Your task to perform on an android device: Show me productivity apps on the Play Store Image 0: 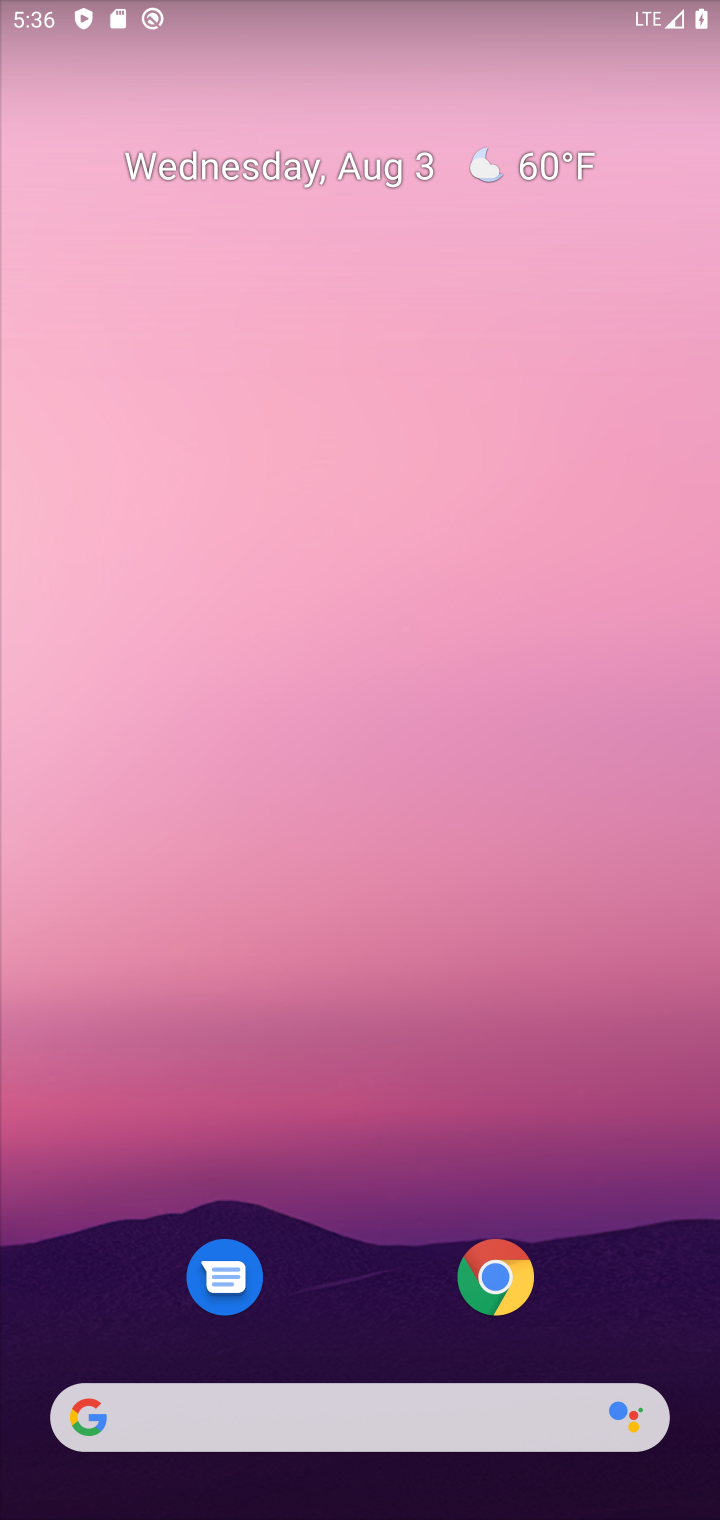
Step 0: drag from (419, 1032) to (544, 199)
Your task to perform on an android device: Show me productivity apps on the Play Store Image 1: 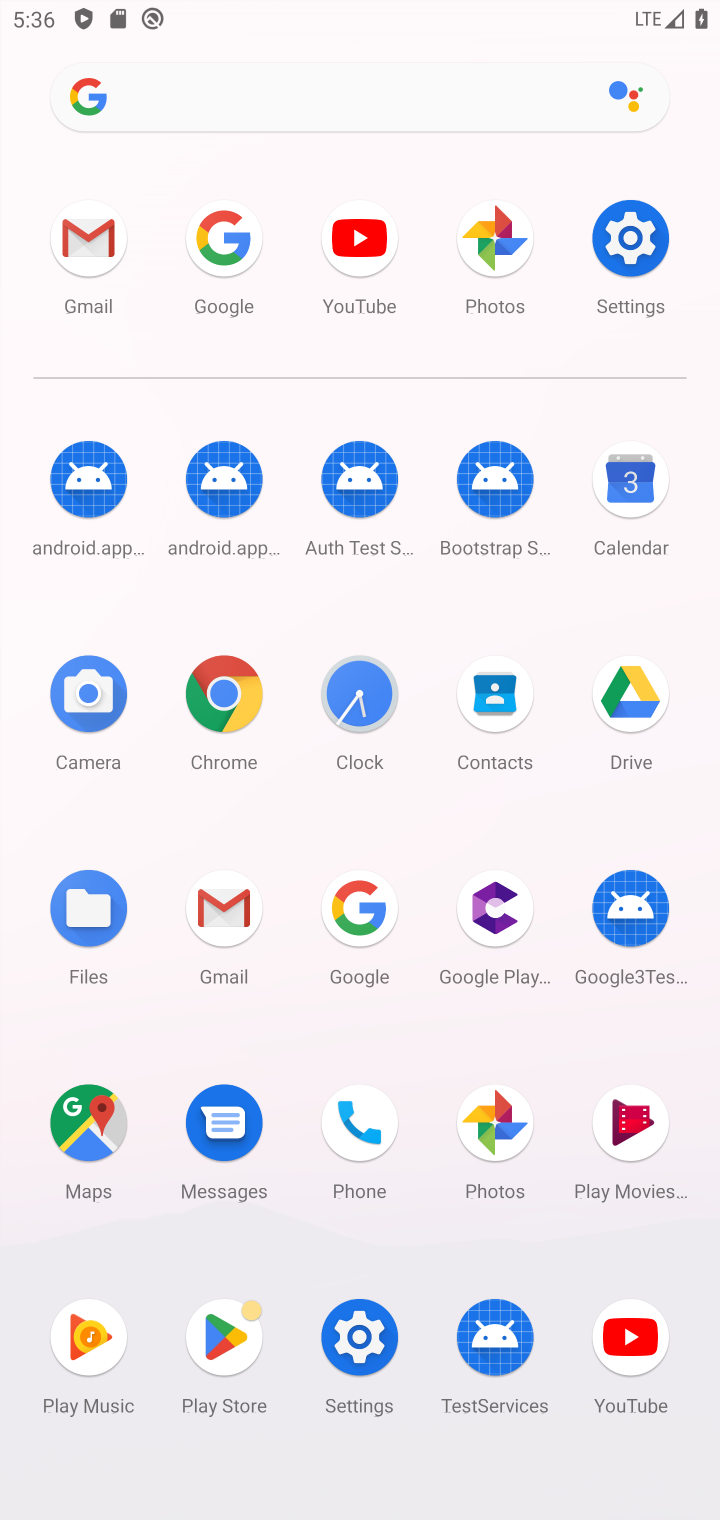
Step 1: click (228, 1339)
Your task to perform on an android device: Show me productivity apps on the Play Store Image 2: 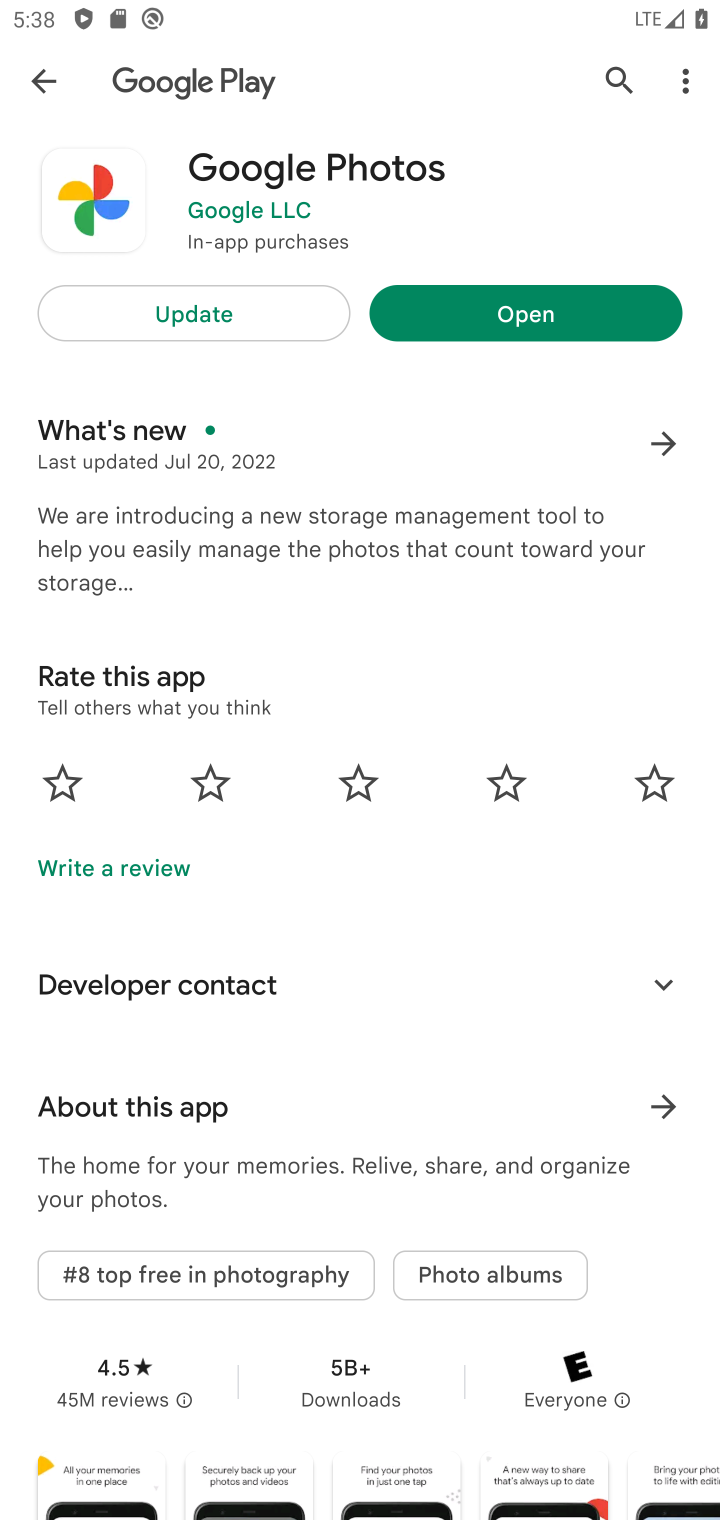
Step 2: click (25, 73)
Your task to perform on an android device: Show me productivity apps on the Play Store Image 3: 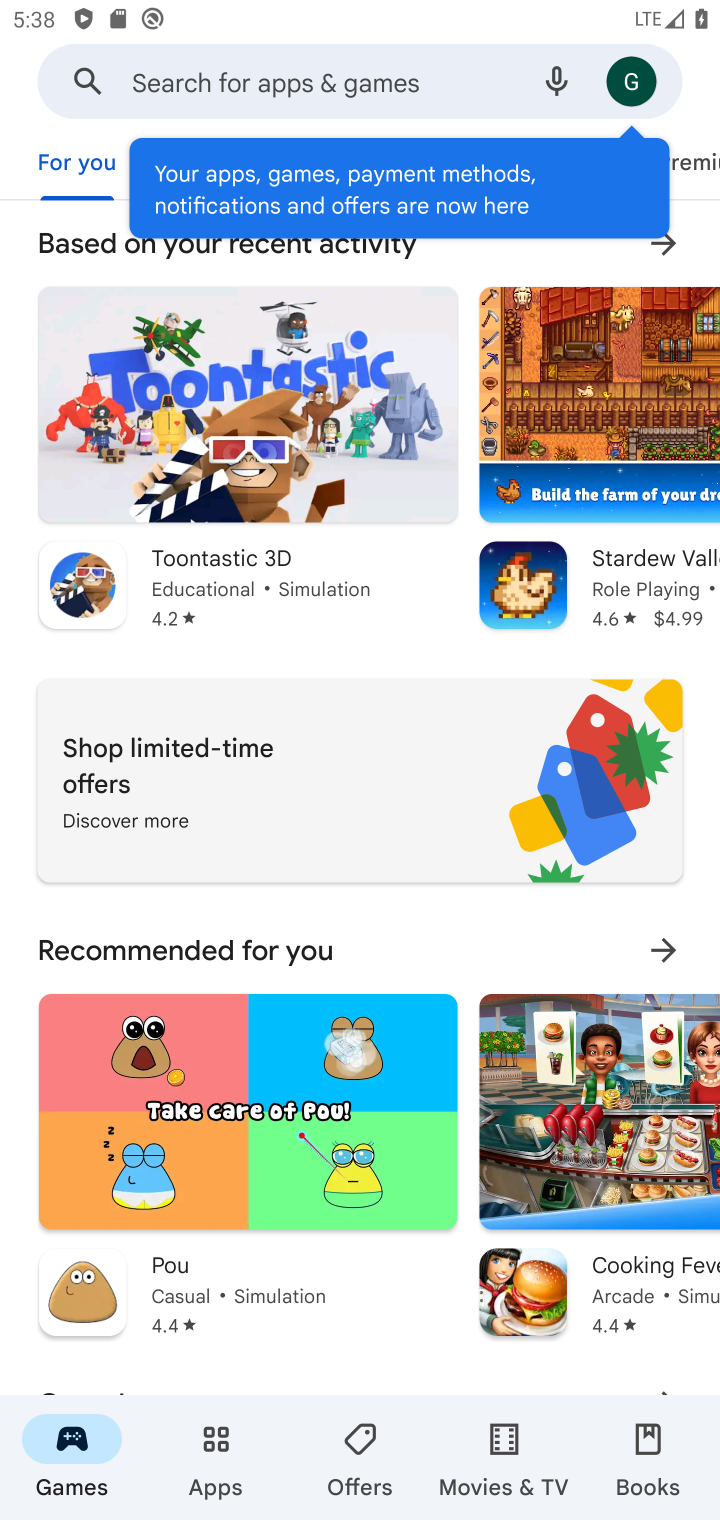
Step 3: click (207, 1456)
Your task to perform on an android device: Show me productivity apps on the Play Store Image 4: 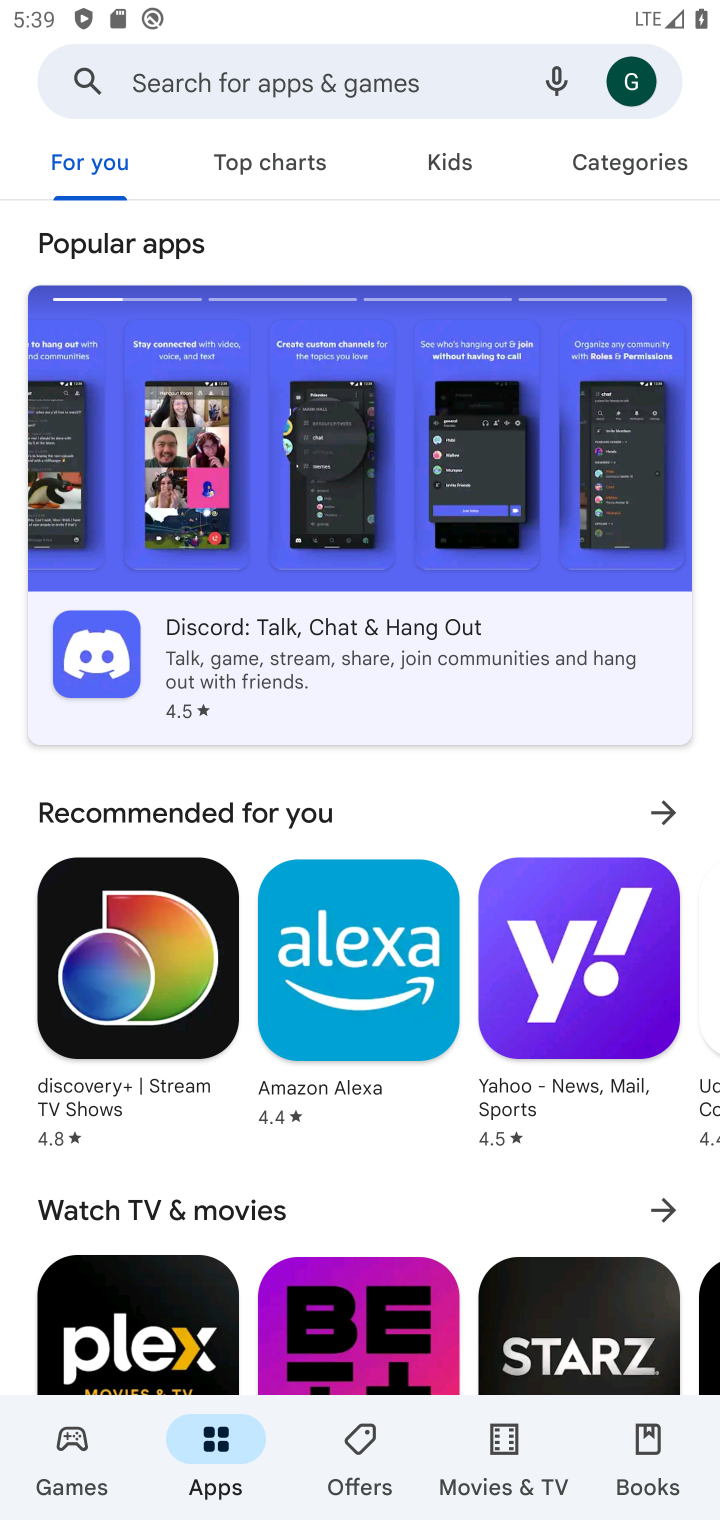
Step 4: drag from (411, 1089) to (554, 22)
Your task to perform on an android device: Show me productivity apps on the Play Store Image 5: 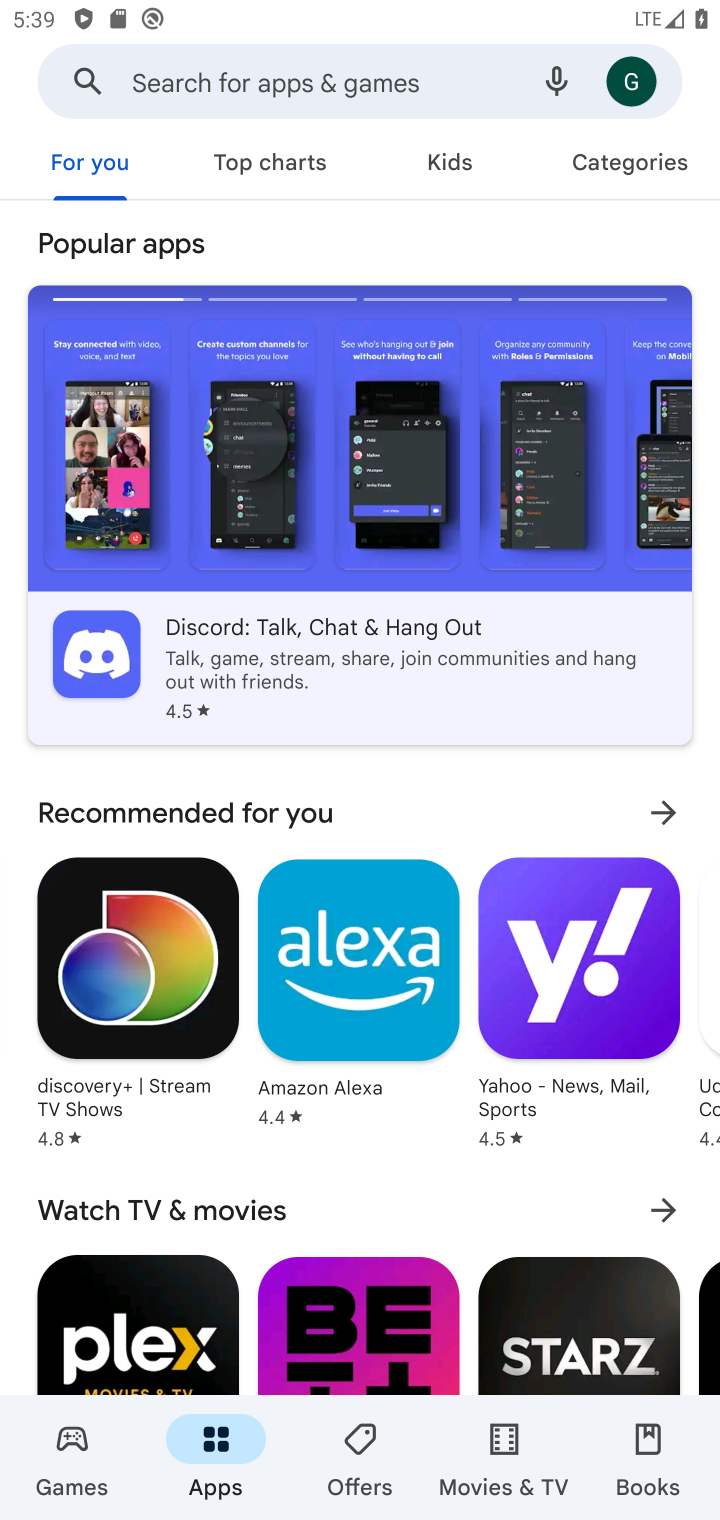
Step 5: drag from (250, 1103) to (454, 193)
Your task to perform on an android device: Show me productivity apps on the Play Store Image 6: 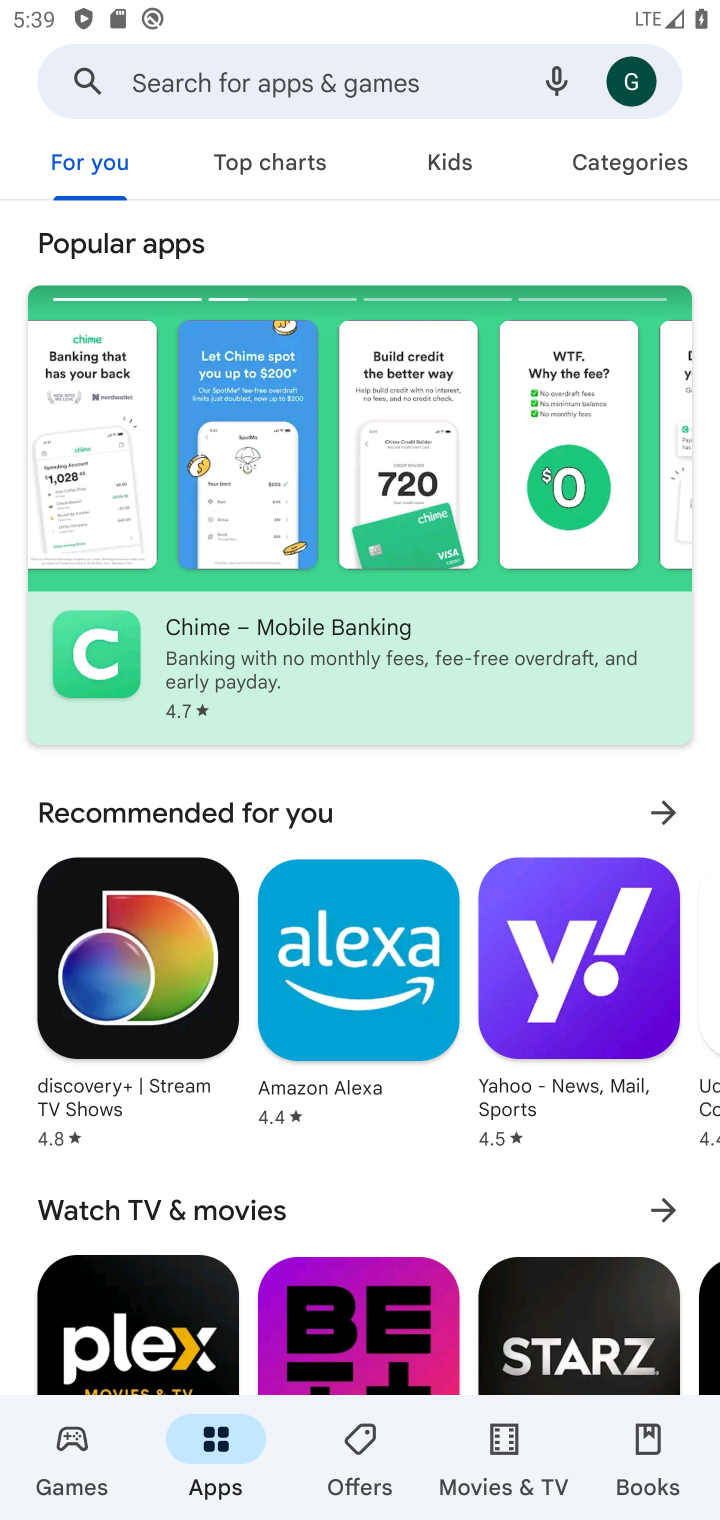
Step 6: drag from (13, 1193) to (194, 129)
Your task to perform on an android device: Show me productivity apps on the Play Store Image 7: 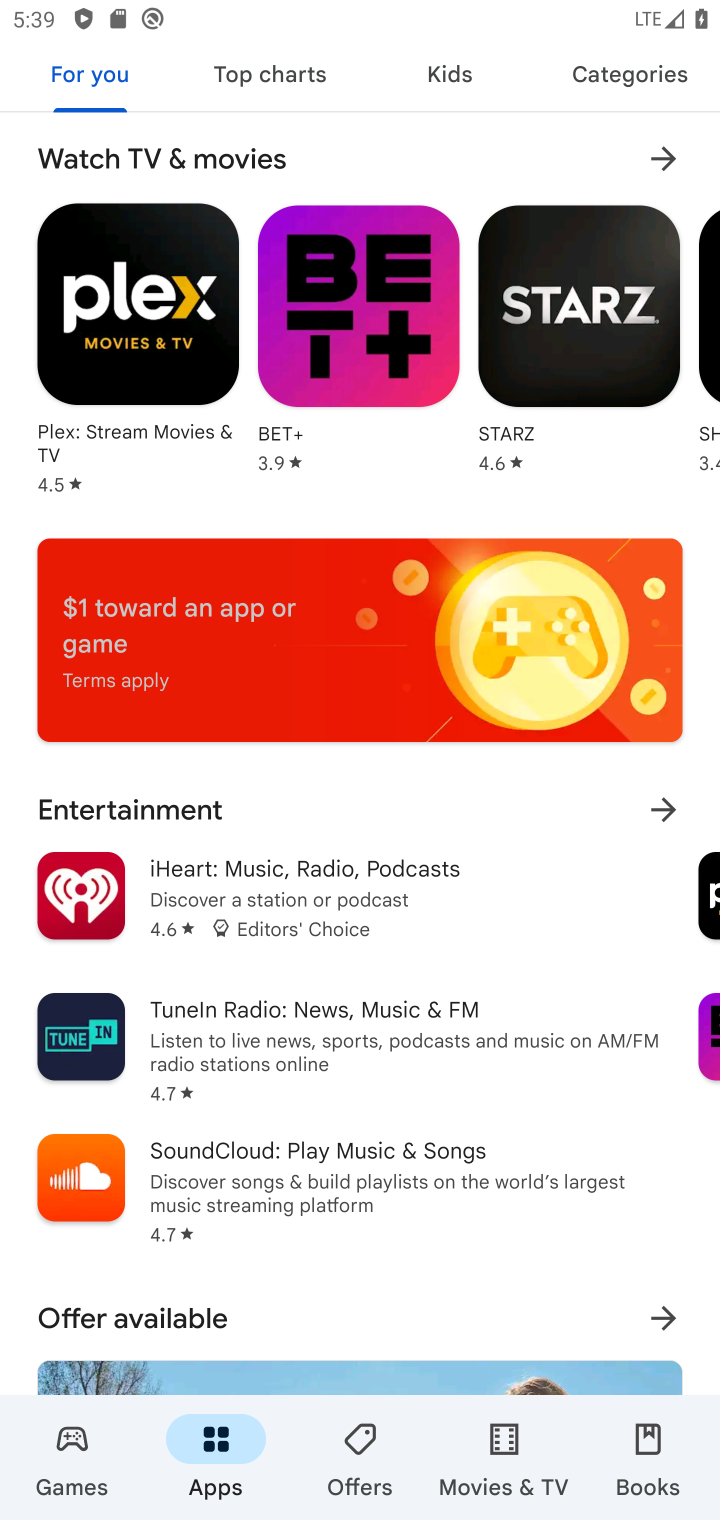
Step 7: drag from (289, 1292) to (551, 89)
Your task to perform on an android device: Show me productivity apps on the Play Store Image 8: 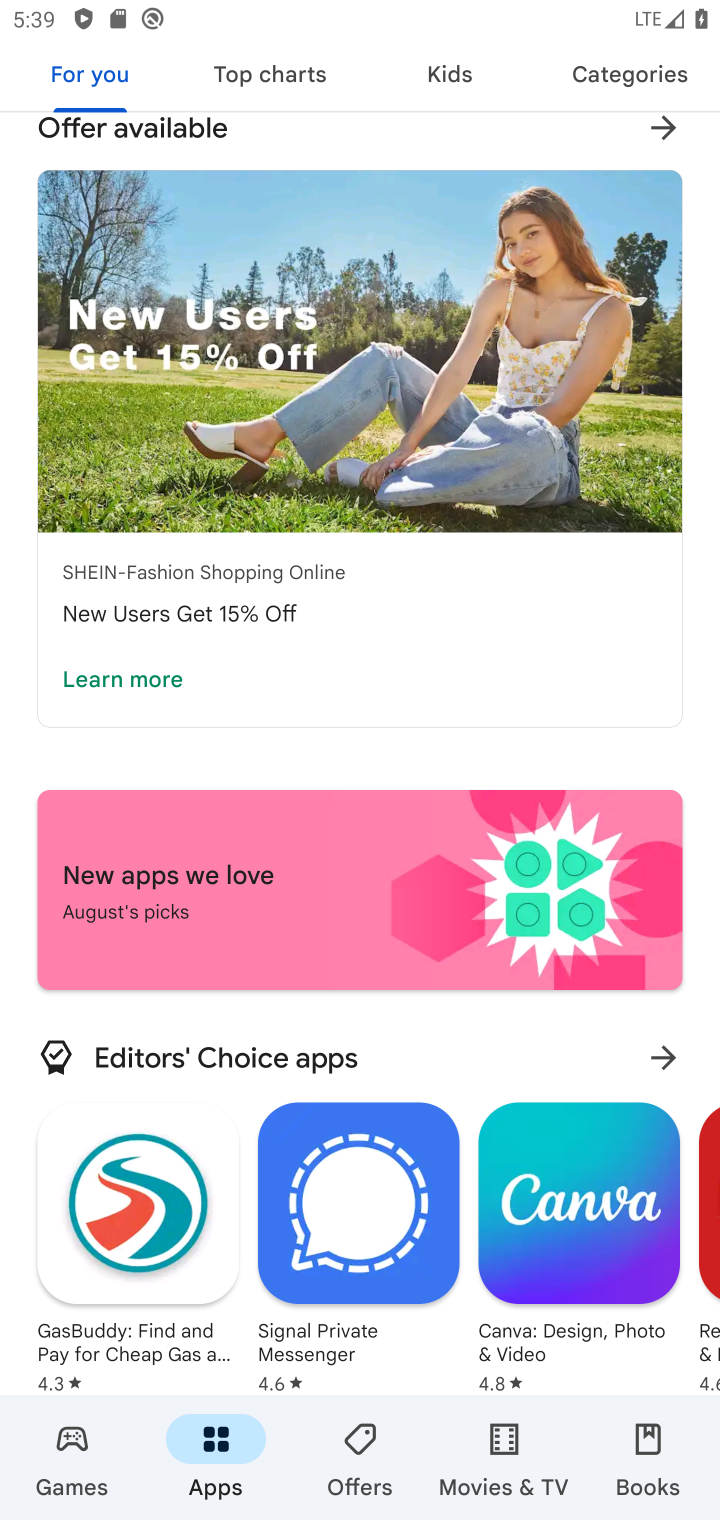
Step 8: drag from (91, 1228) to (331, 36)
Your task to perform on an android device: Show me productivity apps on the Play Store Image 9: 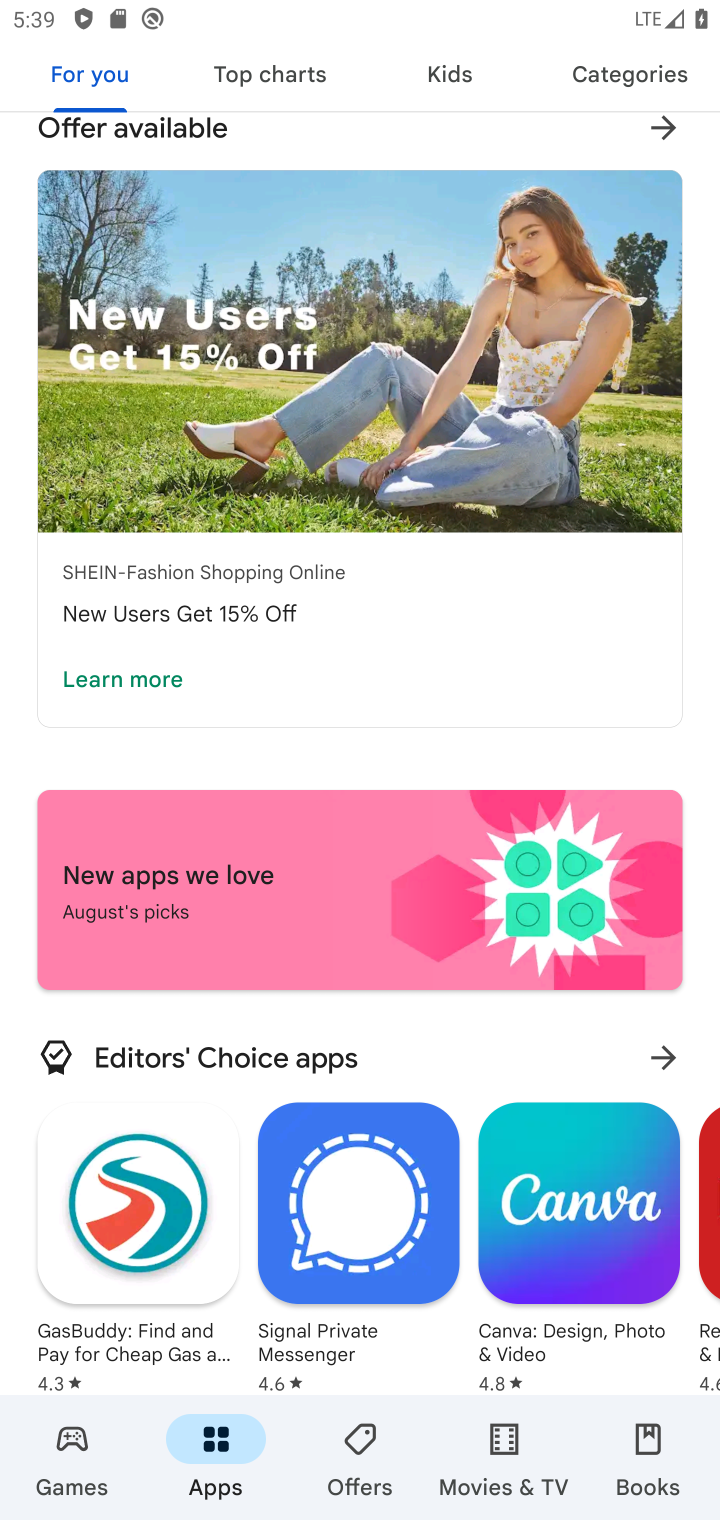
Step 9: drag from (50, 879) to (93, 252)
Your task to perform on an android device: Show me productivity apps on the Play Store Image 10: 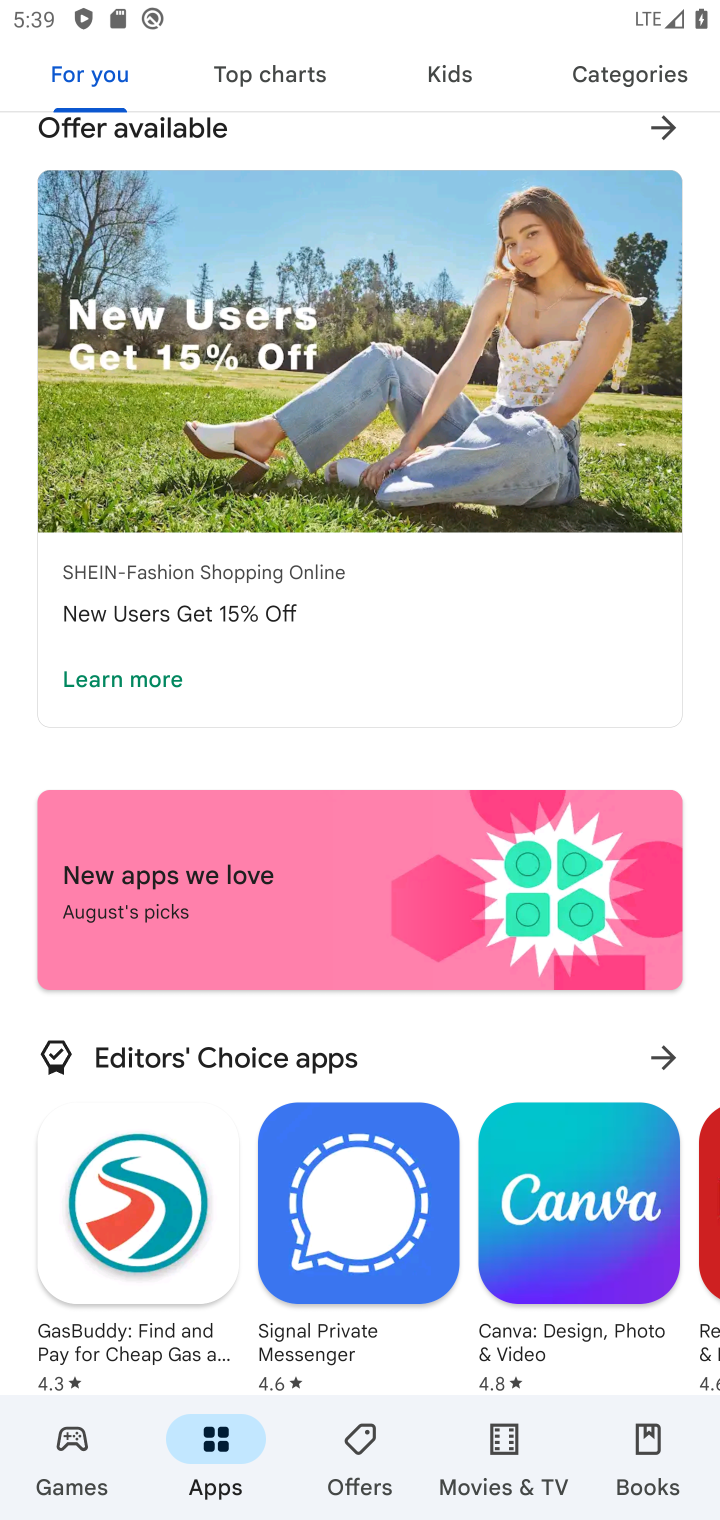
Step 10: drag from (5, 981) to (118, 16)
Your task to perform on an android device: Show me productivity apps on the Play Store Image 11: 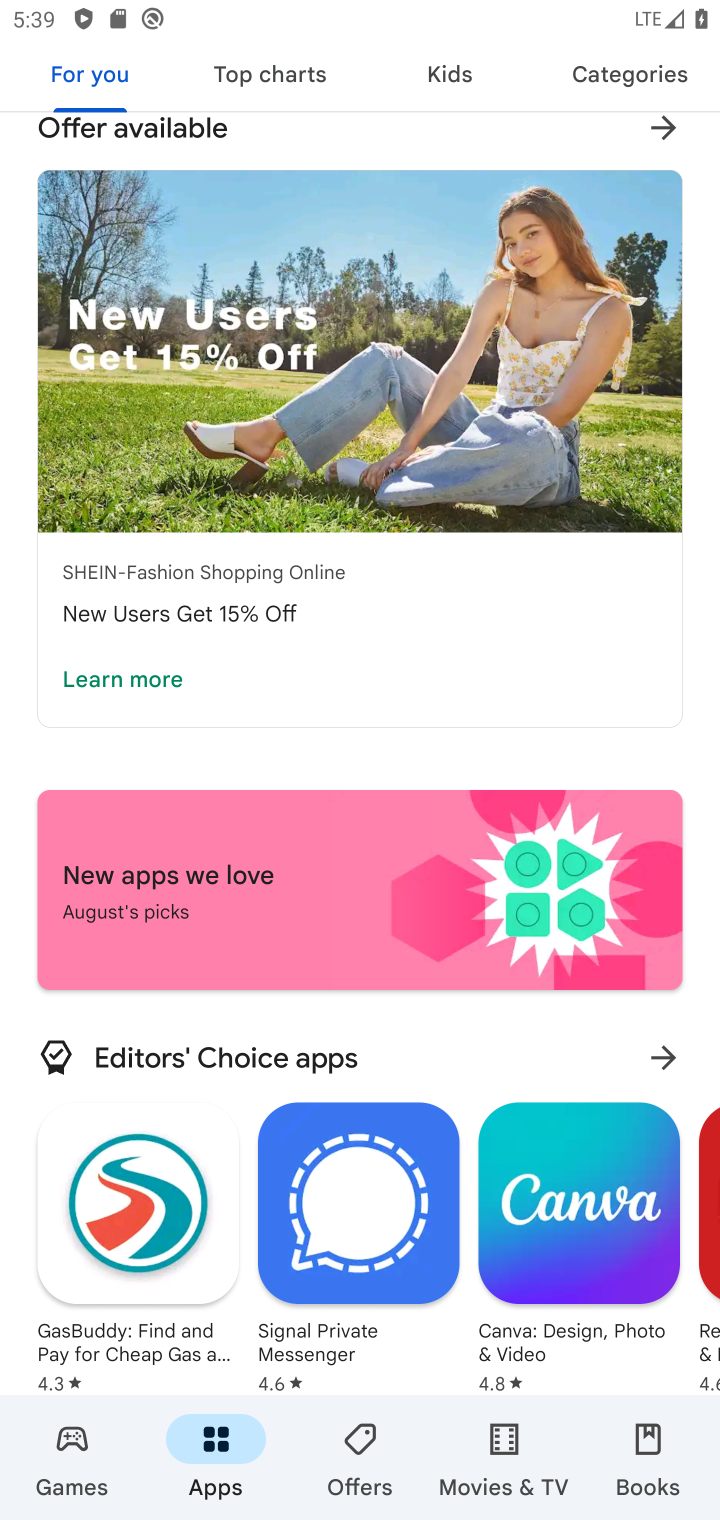
Step 11: drag from (643, 899) to (665, 76)
Your task to perform on an android device: Show me productivity apps on the Play Store Image 12: 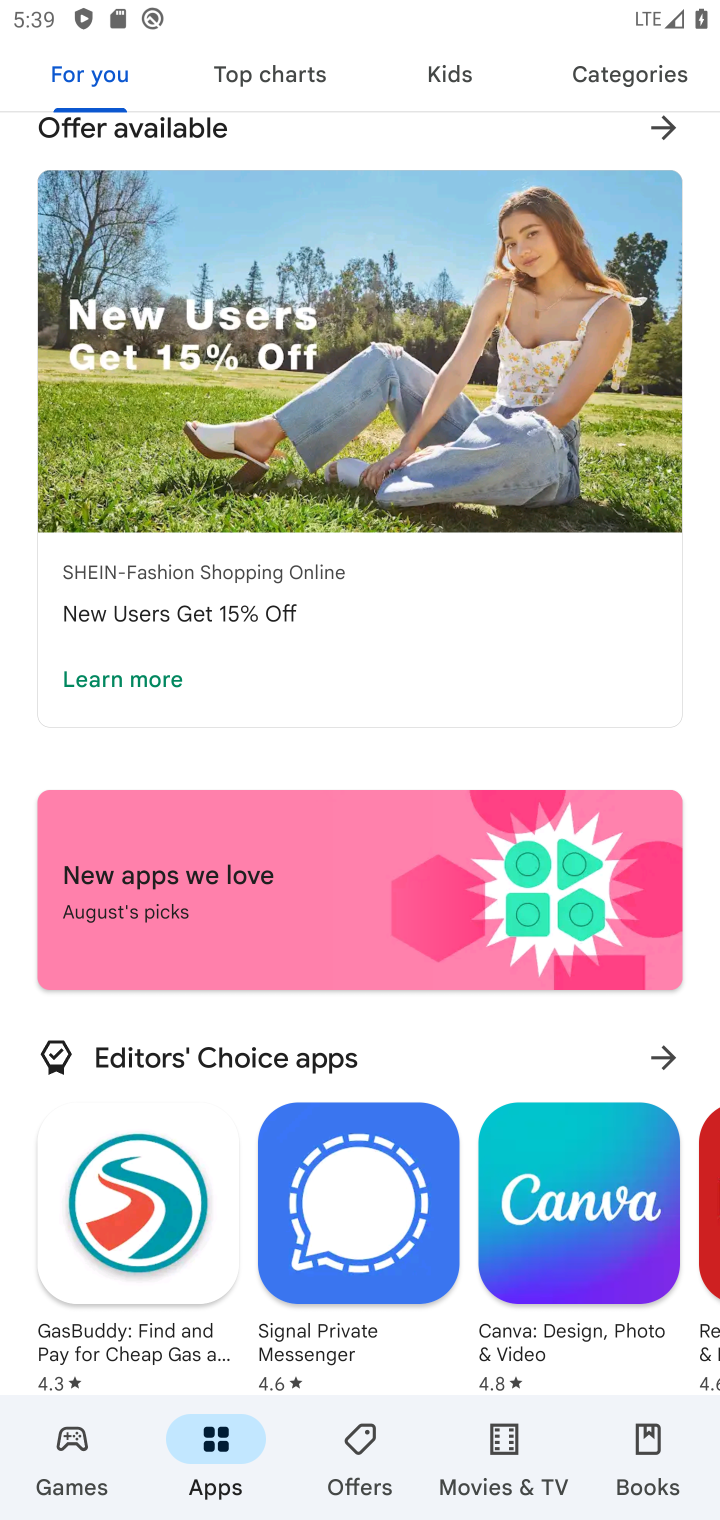
Step 12: drag from (426, 1184) to (475, 72)
Your task to perform on an android device: Show me productivity apps on the Play Store Image 13: 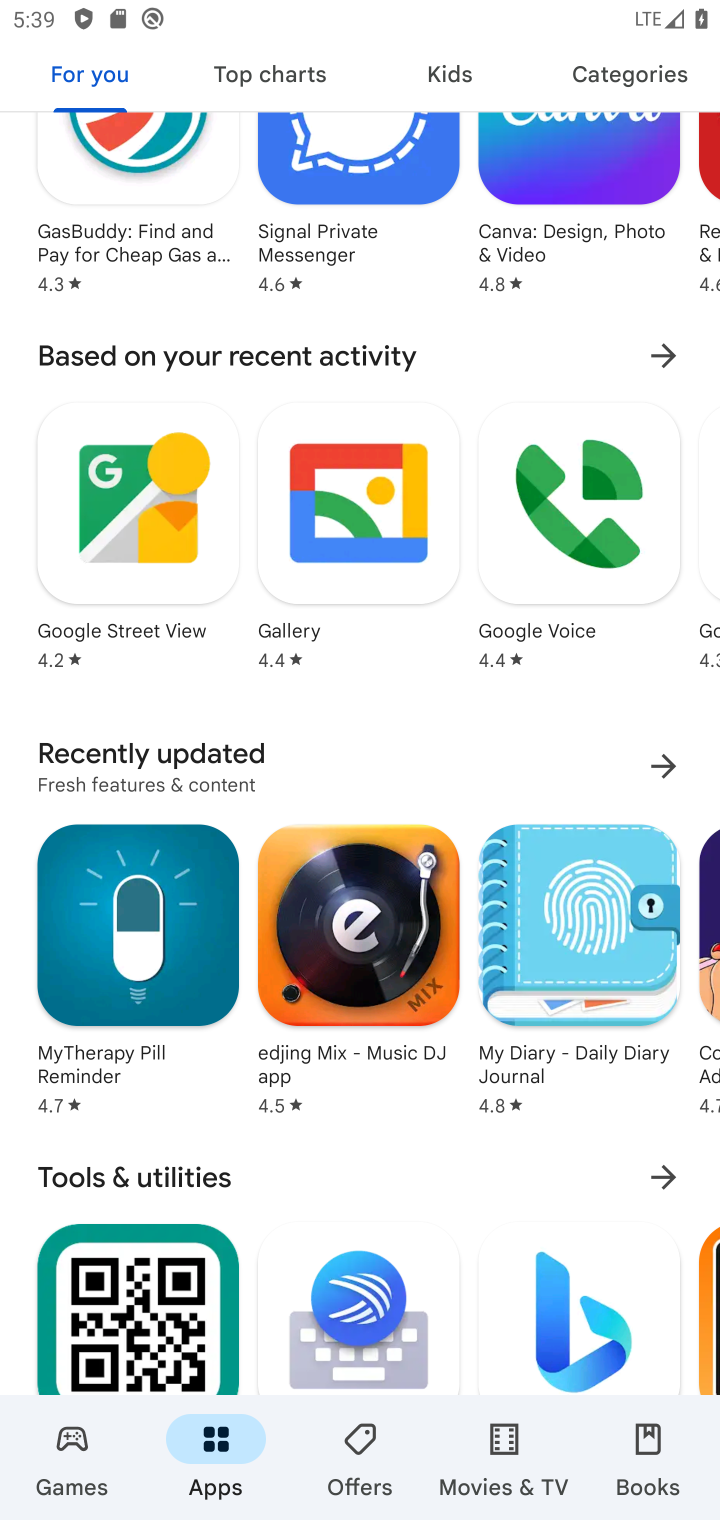
Step 13: drag from (402, 1335) to (585, 21)
Your task to perform on an android device: Show me productivity apps on the Play Store Image 14: 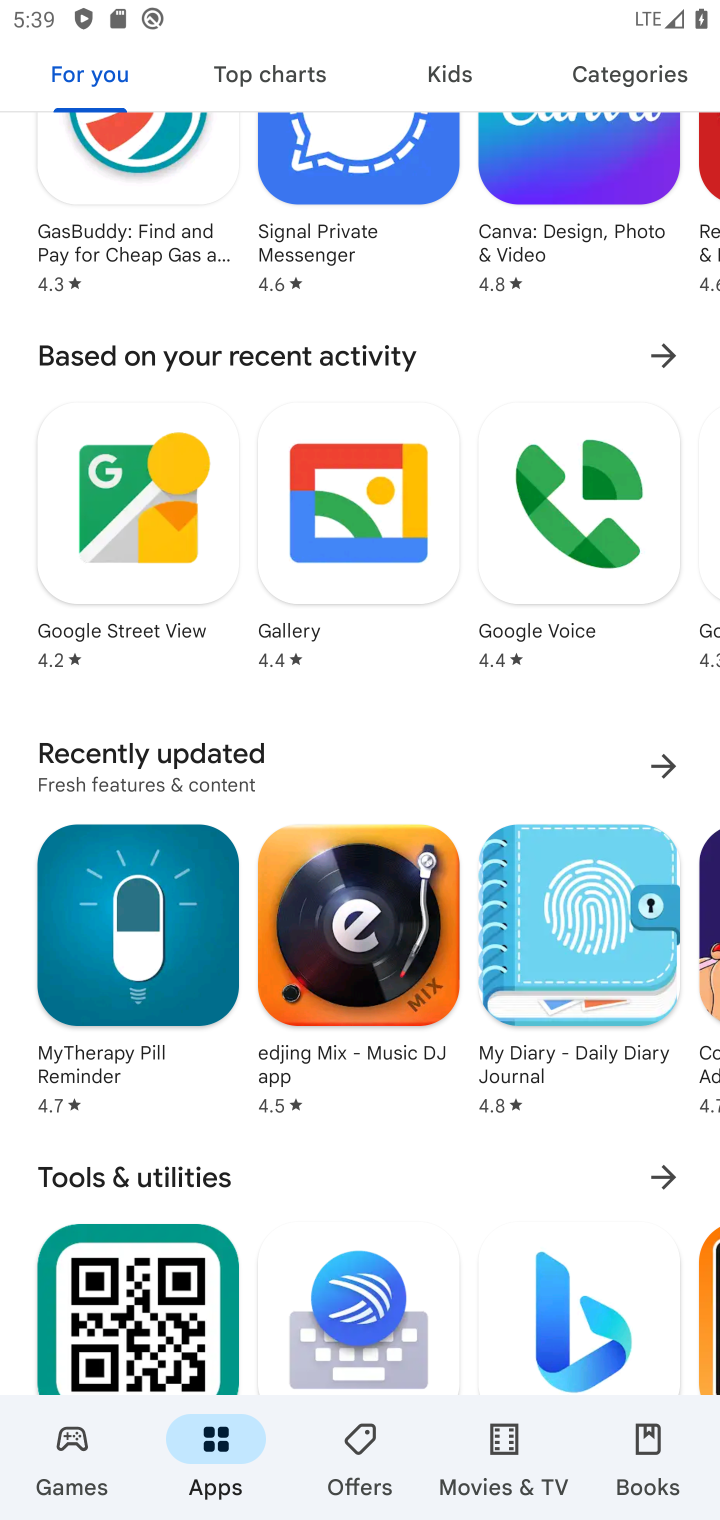
Step 14: drag from (377, 992) to (473, 119)
Your task to perform on an android device: Show me productivity apps on the Play Store Image 15: 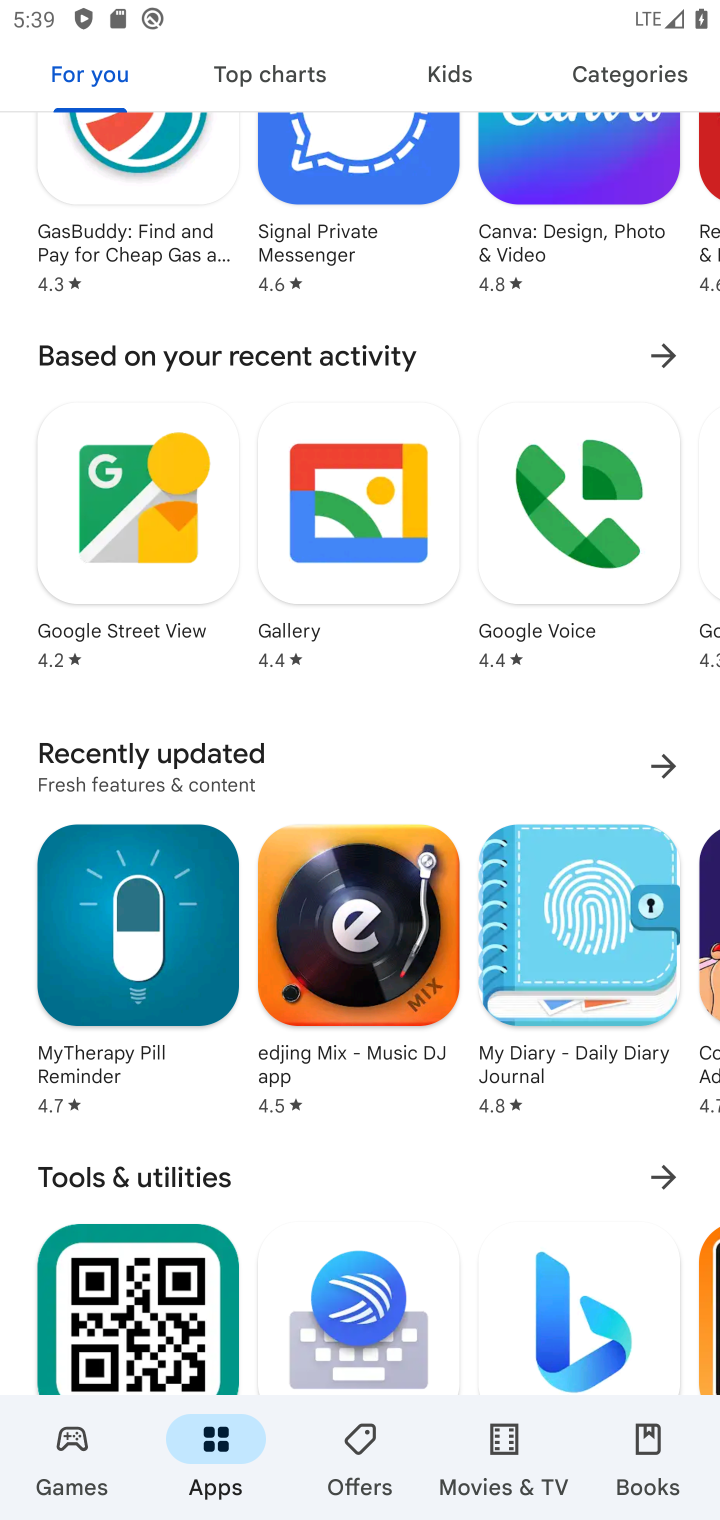
Step 15: drag from (119, 853) to (238, 119)
Your task to perform on an android device: Show me productivity apps on the Play Store Image 16: 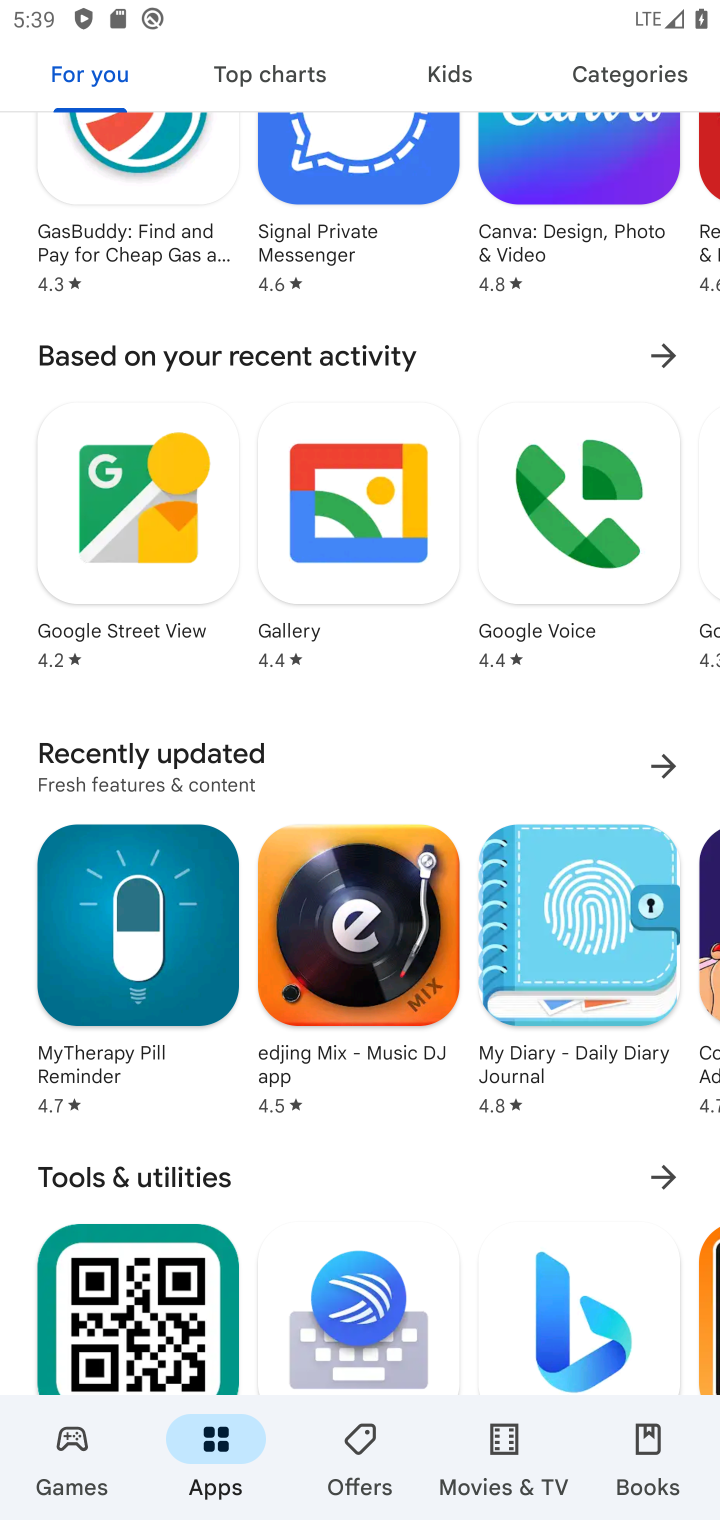
Step 16: drag from (17, 1169) to (38, 195)
Your task to perform on an android device: Show me productivity apps on the Play Store Image 17: 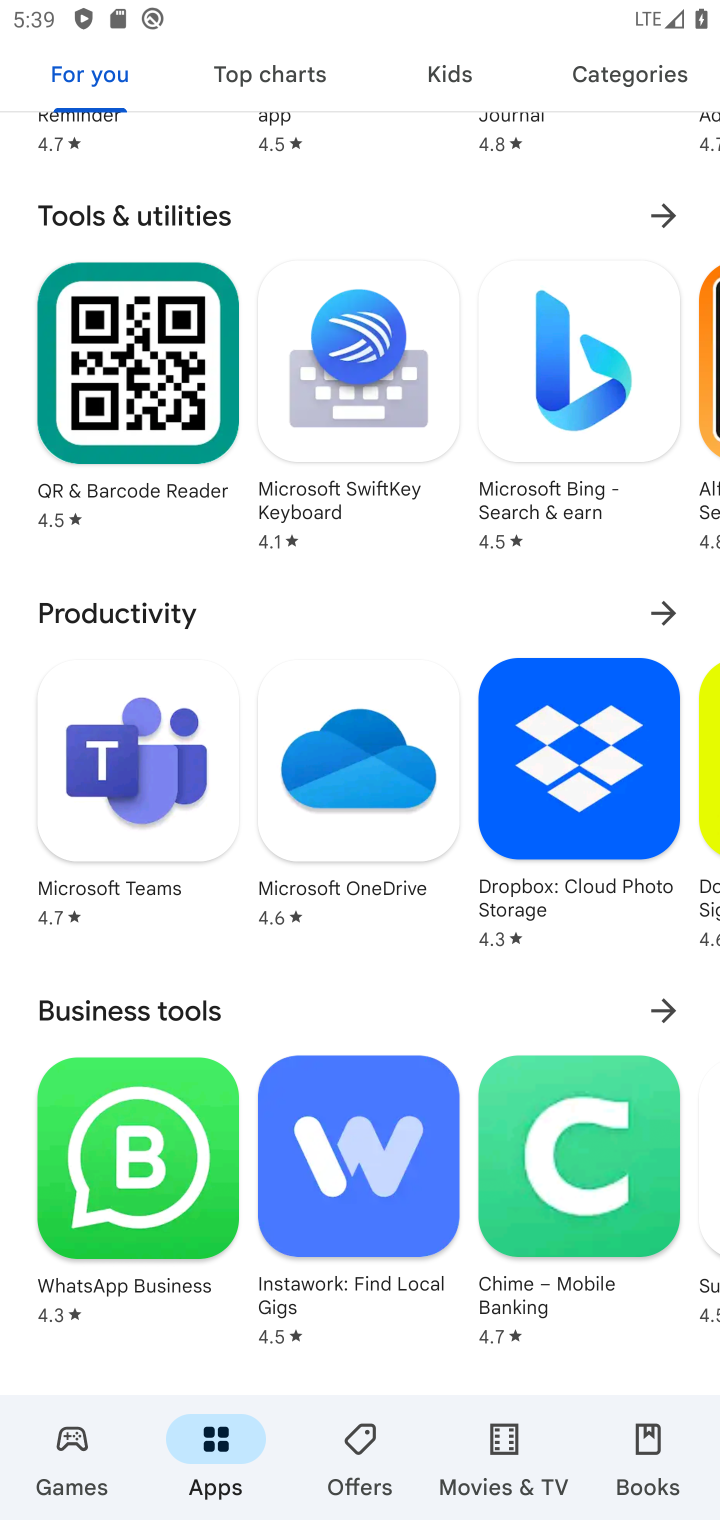
Step 17: click (689, 602)
Your task to perform on an android device: Show me productivity apps on the Play Store Image 18: 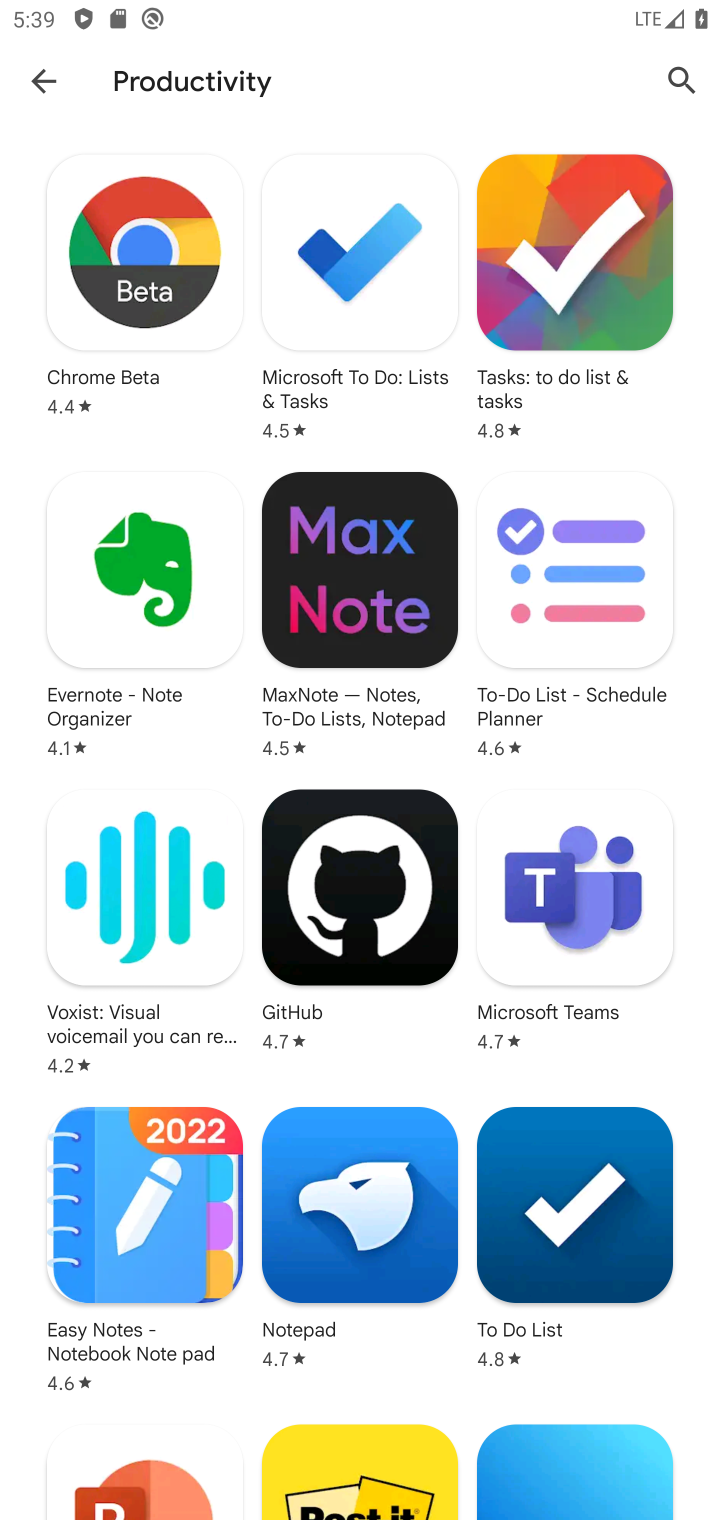
Step 18: task complete